Your task to perform on an android device: Open maps Image 0: 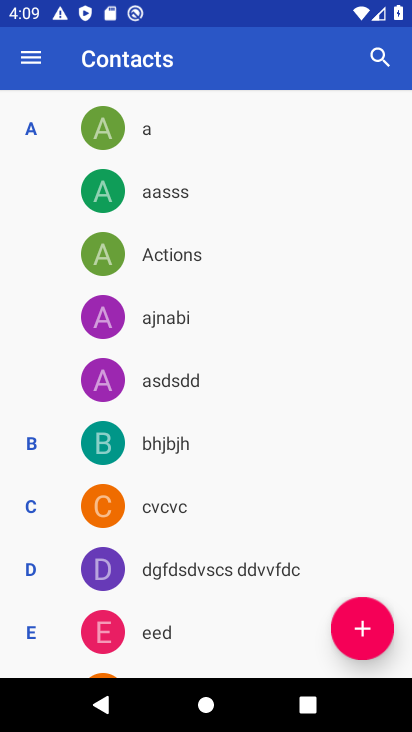
Step 0: press home button
Your task to perform on an android device: Open maps Image 1: 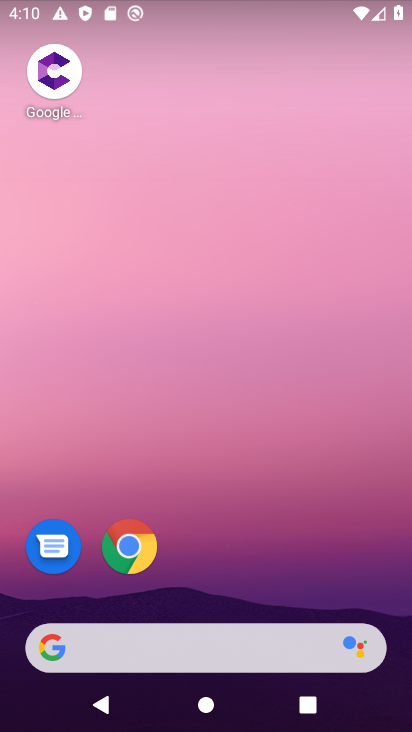
Step 1: drag from (158, 601) to (191, 1)
Your task to perform on an android device: Open maps Image 2: 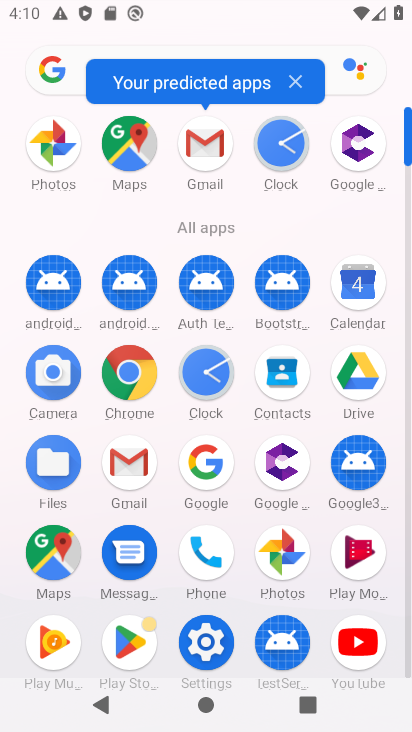
Step 2: click (50, 574)
Your task to perform on an android device: Open maps Image 3: 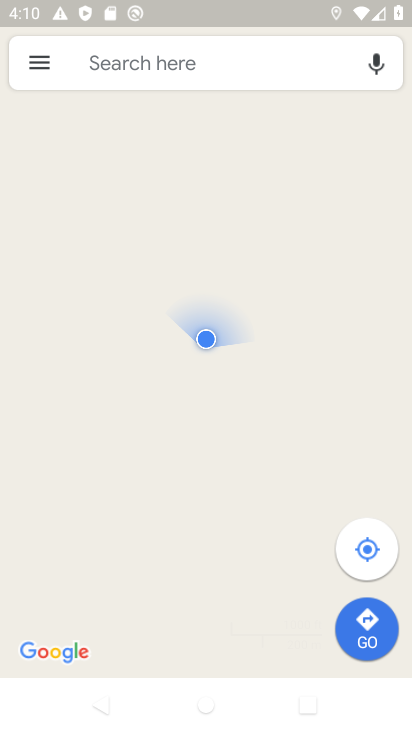
Step 3: task complete